Your task to perform on an android device: Go to sound settings Image 0: 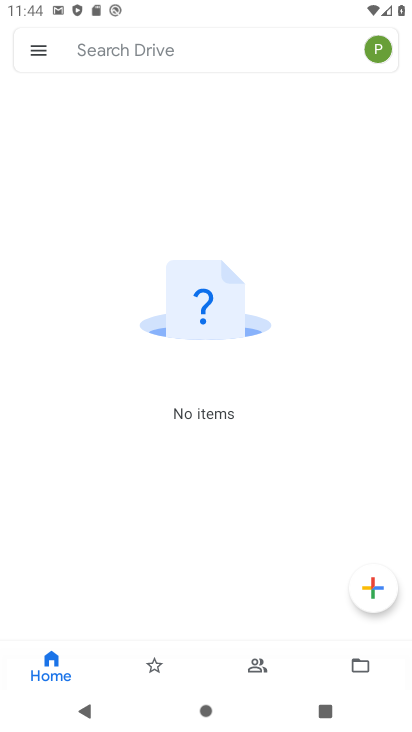
Step 0: press home button
Your task to perform on an android device: Go to sound settings Image 1: 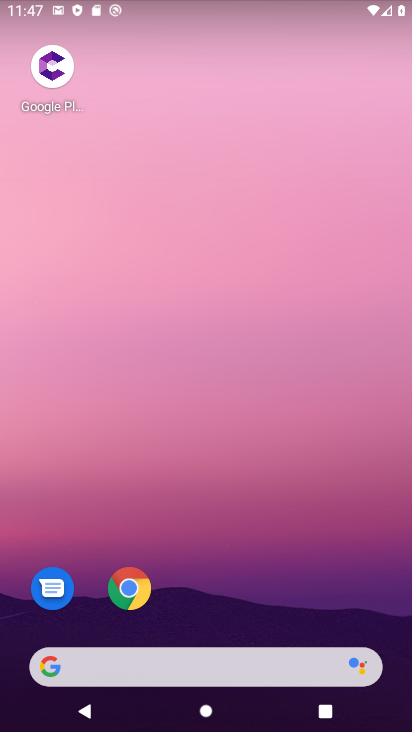
Step 1: drag from (233, 489) to (181, 128)
Your task to perform on an android device: Go to sound settings Image 2: 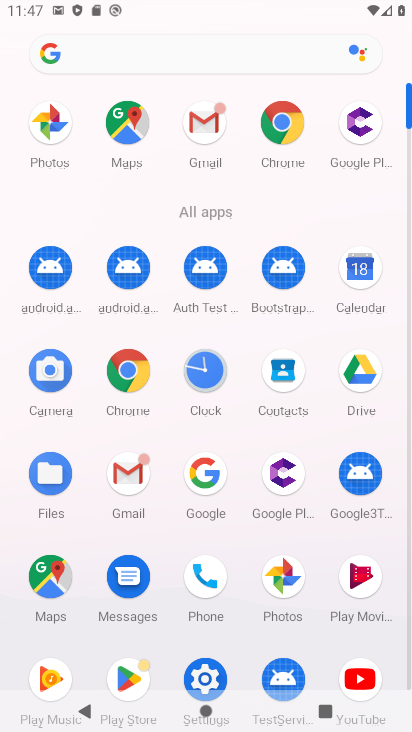
Step 2: click (204, 667)
Your task to perform on an android device: Go to sound settings Image 3: 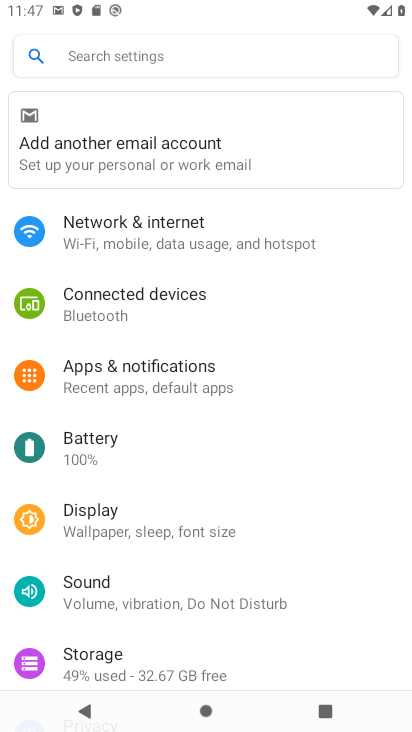
Step 3: click (225, 608)
Your task to perform on an android device: Go to sound settings Image 4: 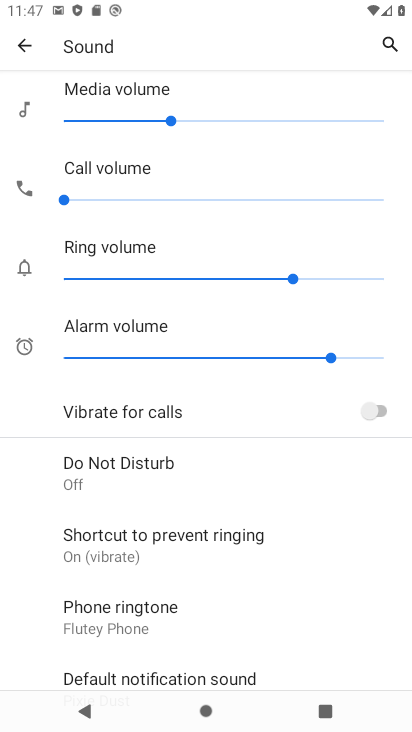
Step 4: task complete